Your task to perform on an android device: move a message to another label in the gmail app Image 0: 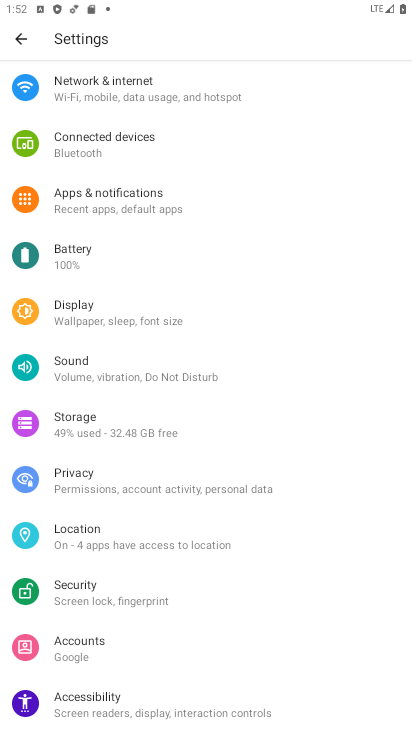
Step 0: press home button
Your task to perform on an android device: move a message to another label in the gmail app Image 1: 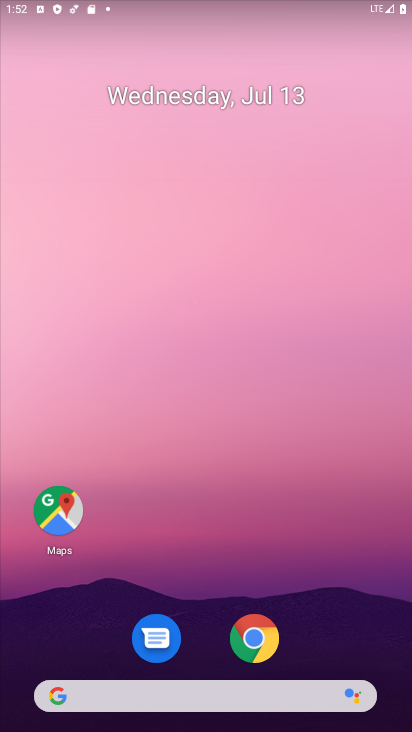
Step 1: drag from (211, 725) to (283, 0)
Your task to perform on an android device: move a message to another label in the gmail app Image 2: 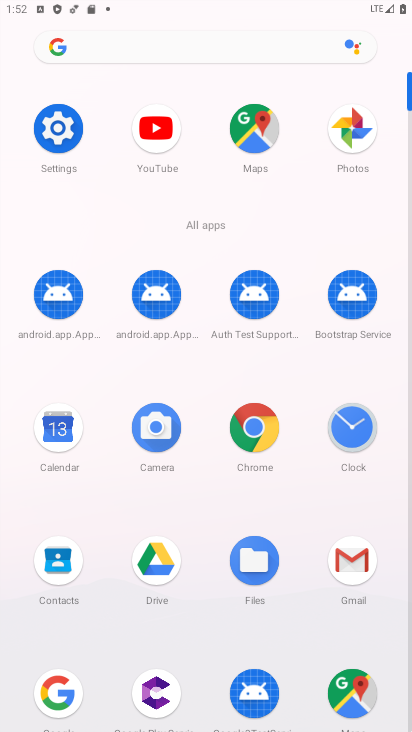
Step 2: drag from (175, 721) to (402, 451)
Your task to perform on an android device: move a message to another label in the gmail app Image 3: 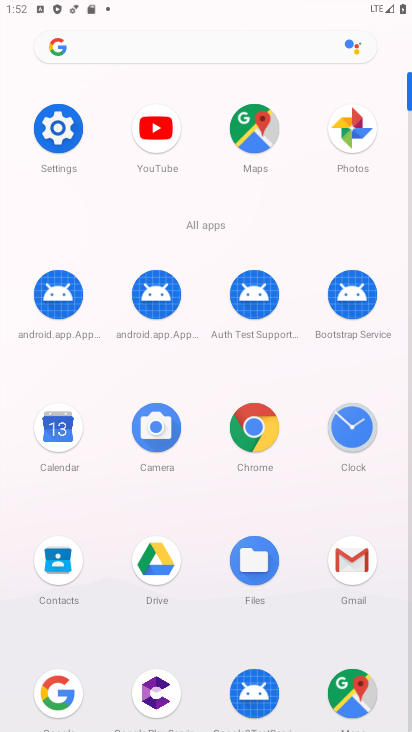
Step 3: click (364, 553)
Your task to perform on an android device: move a message to another label in the gmail app Image 4: 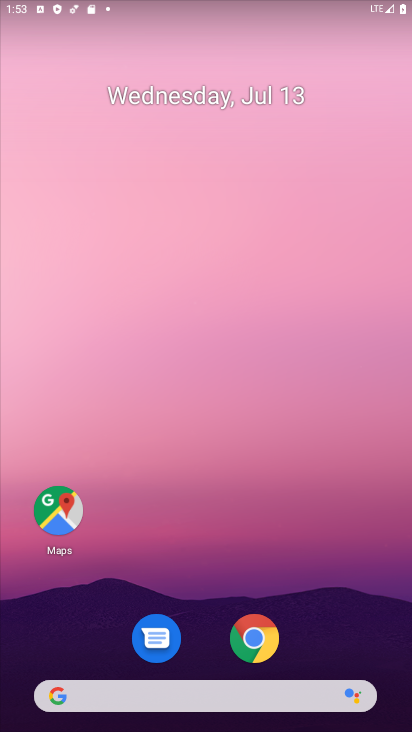
Step 4: drag from (181, 726) to (313, 4)
Your task to perform on an android device: move a message to another label in the gmail app Image 5: 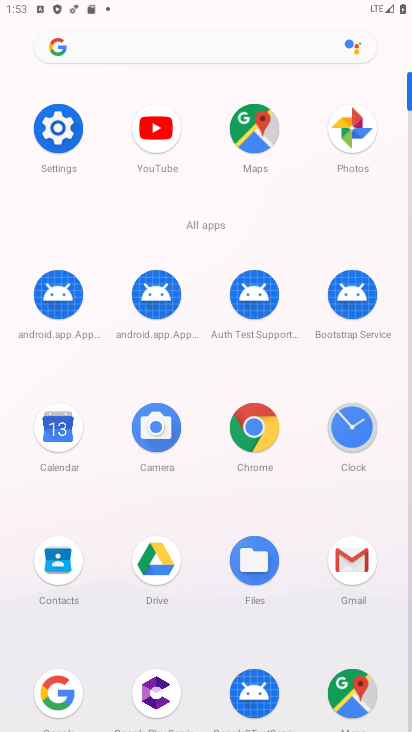
Step 5: click (354, 573)
Your task to perform on an android device: move a message to another label in the gmail app Image 6: 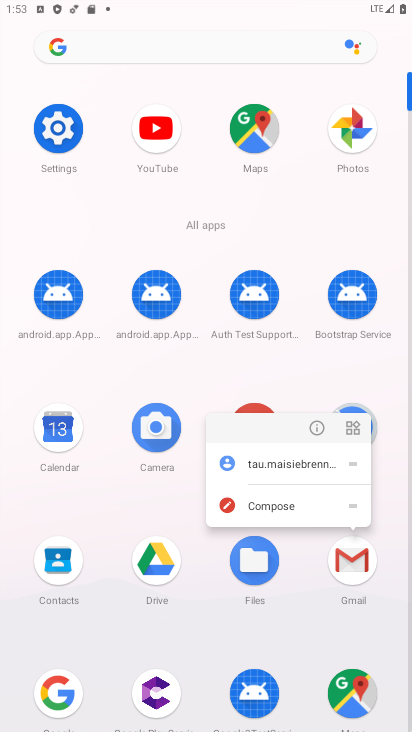
Step 6: click (347, 545)
Your task to perform on an android device: move a message to another label in the gmail app Image 7: 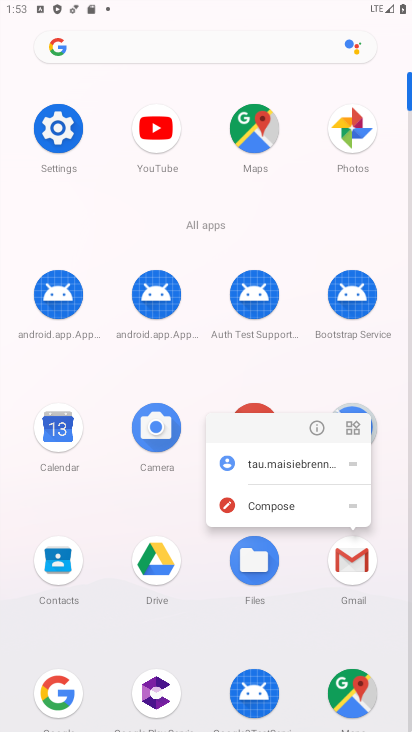
Step 7: click (347, 545)
Your task to perform on an android device: move a message to another label in the gmail app Image 8: 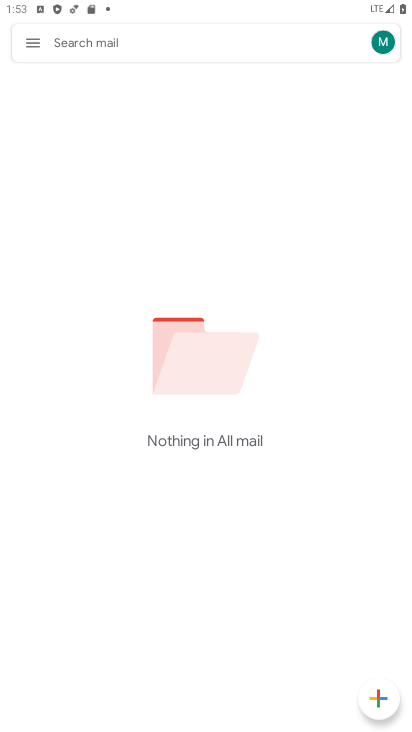
Step 8: task complete